Your task to perform on an android device: Open network settings Image 0: 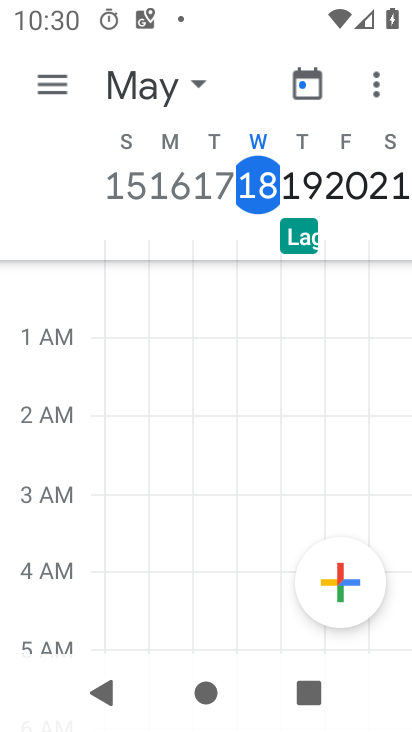
Step 0: press home button
Your task to perform on an android device: Open network settings Image 1: 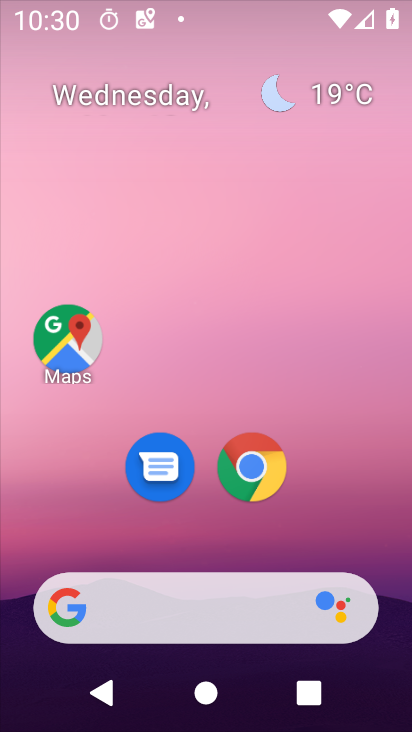
Step 1: drag from (331, 493) to (250, 16)
Your task to perform on an android device: Open network settings Image 2: 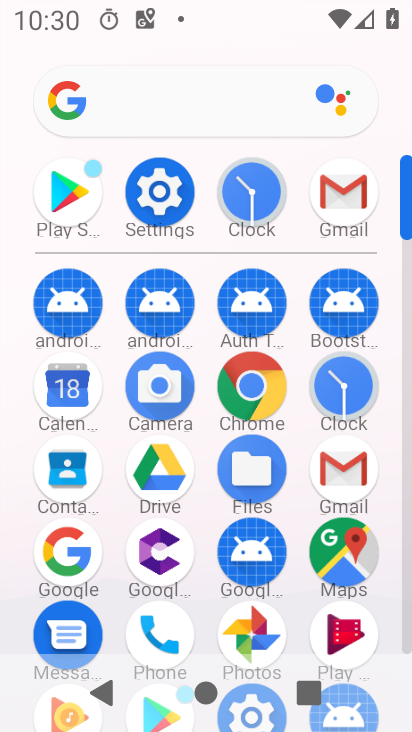
Step 2: click (159, 209)
Your task to perform on an android device: Open network settings Image 3: 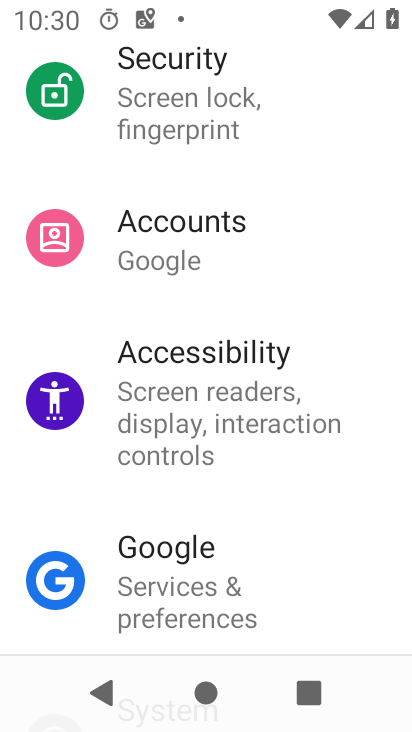
Step 3: drag from (260, 151) to (243, 592)
Your task to perform on an android device: Open network settings Image 4: 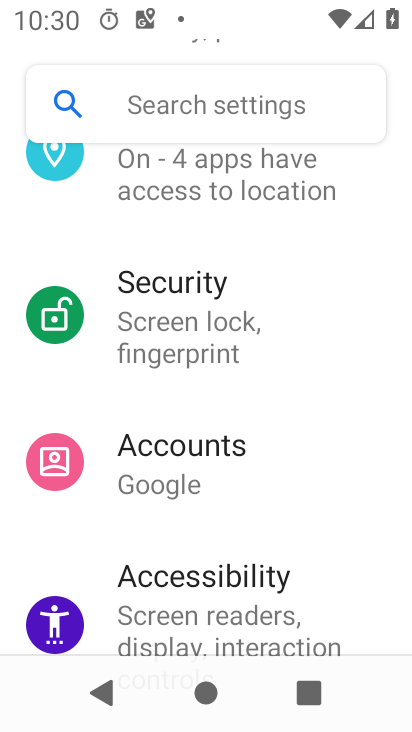
Step 4: drag from (220, 120) to (232, 601)
Your task to perform on an android device: Open network settings Image 5: 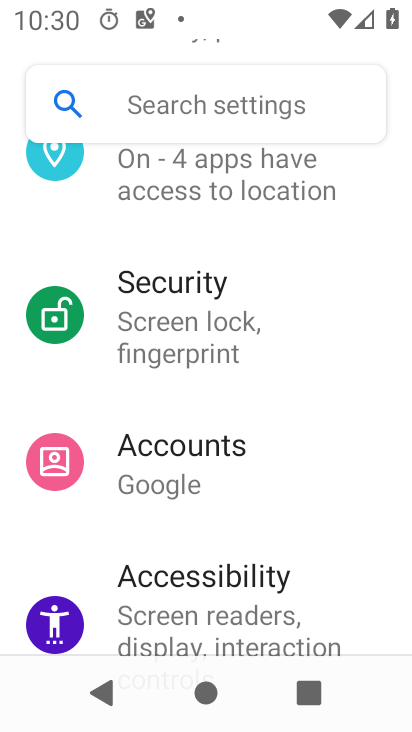
Step 5: drag from (237, 220) to (217, 634)
Your task to perform on an android device: Open network settings Image 6: 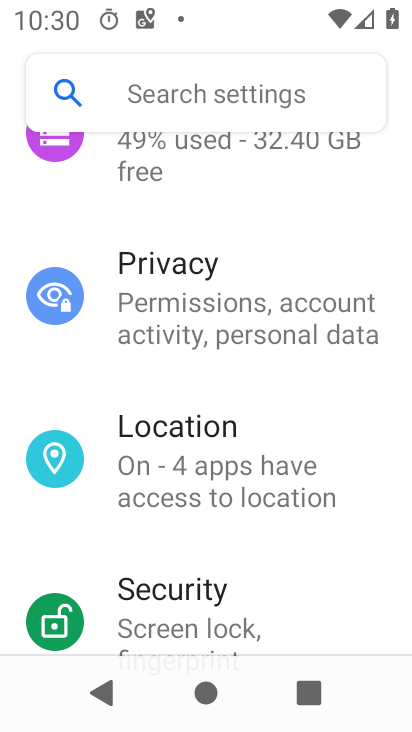
Step 6: drag from (233, 270) to (215, 672)
Your task to perform on an android device: Open network settings Image 7: 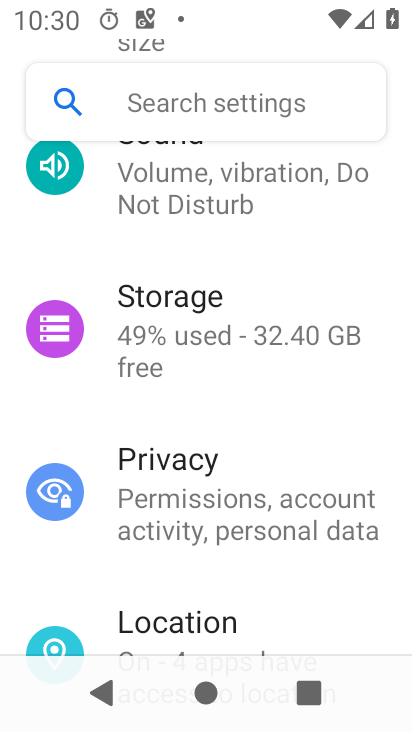
Step 7: drag from (221, 190) to (219, 550)
Your task to perform on an android device: Open network settings Image 8: 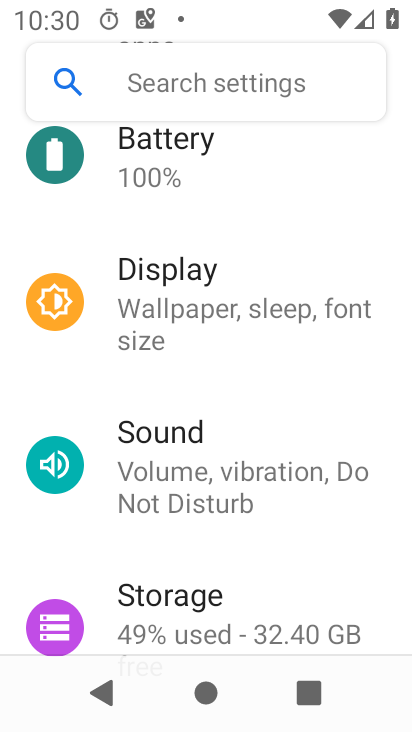
Step 8: drag from (193, 216) to (179, 599)
Your task to perform on an android device: Open network settings Image 9: 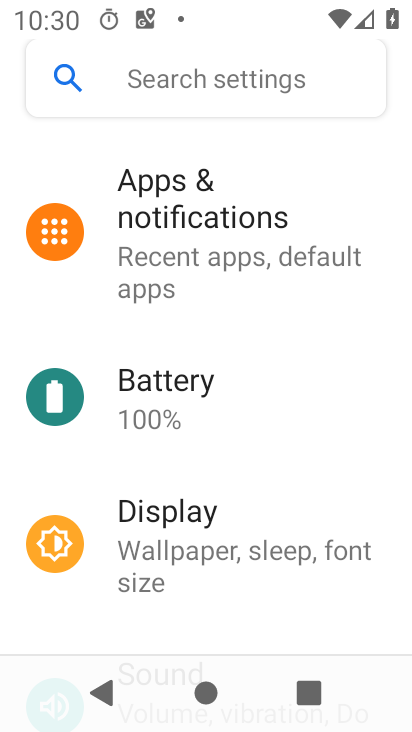
Step 9: drag from (235, 208) to (216, 591)
Your task to perform on an android device: Open network settings Image 10: 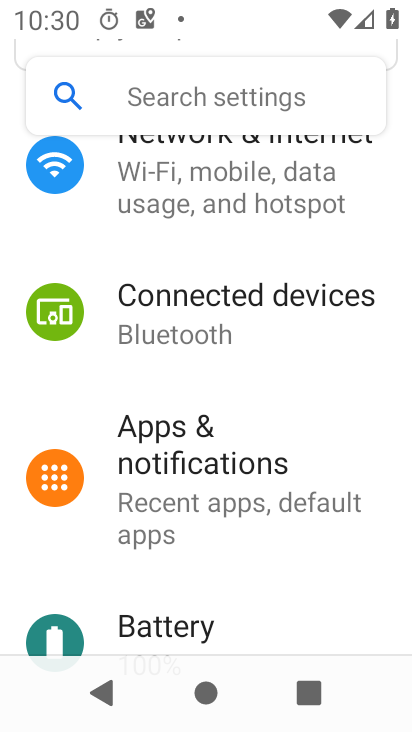
Step 10: click (211, 203)
Your task to perform on an android device: Open network settings Image 11: 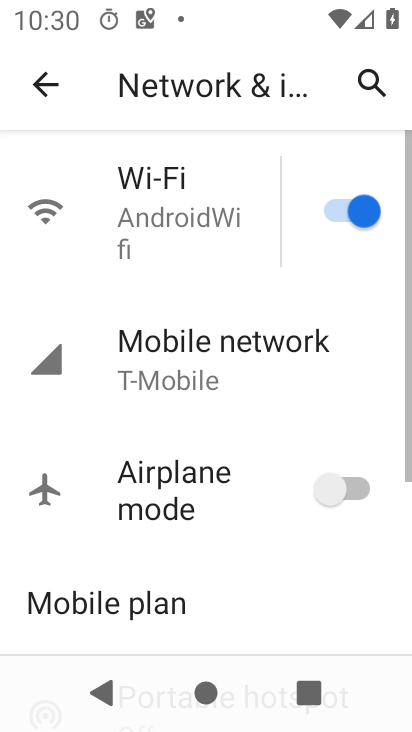
Step 11: task complete